Your task to perform on an android device: Is it going to rain today? Image 0: 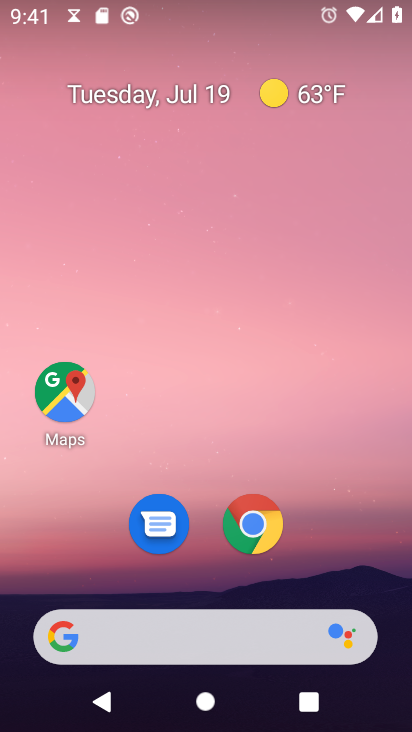
Step 0: click (180, 638)
Your task to perform on an android device: Is it going to rain today? Image 1: 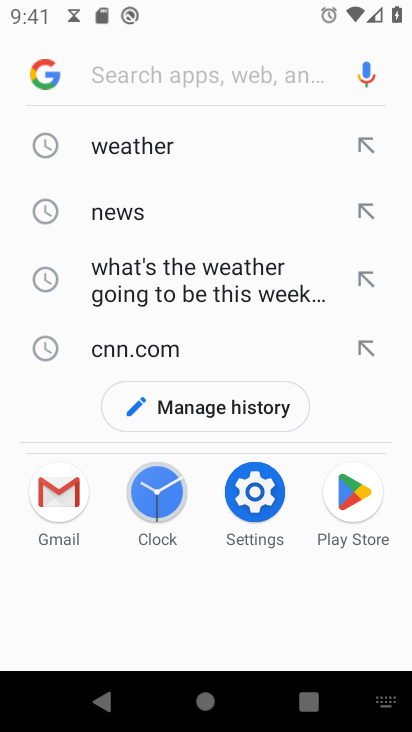
Step 1: click (156, 144)
Your task to perform on an android device: Is it going to rain today? Image 2: 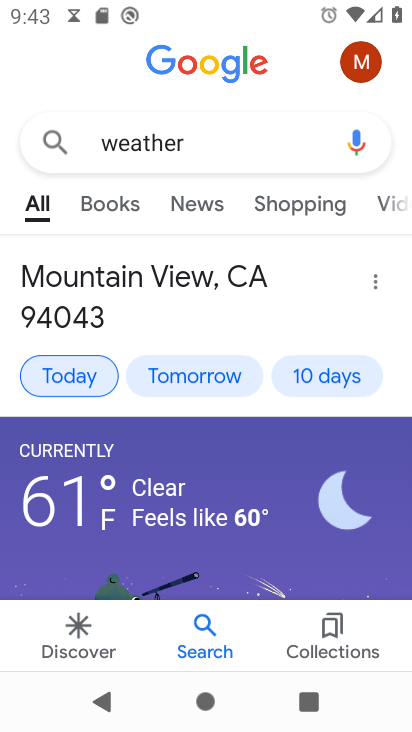
Step 2: task complete